Your task to perform on an android device: allow cookies in the chrome app Image 0: 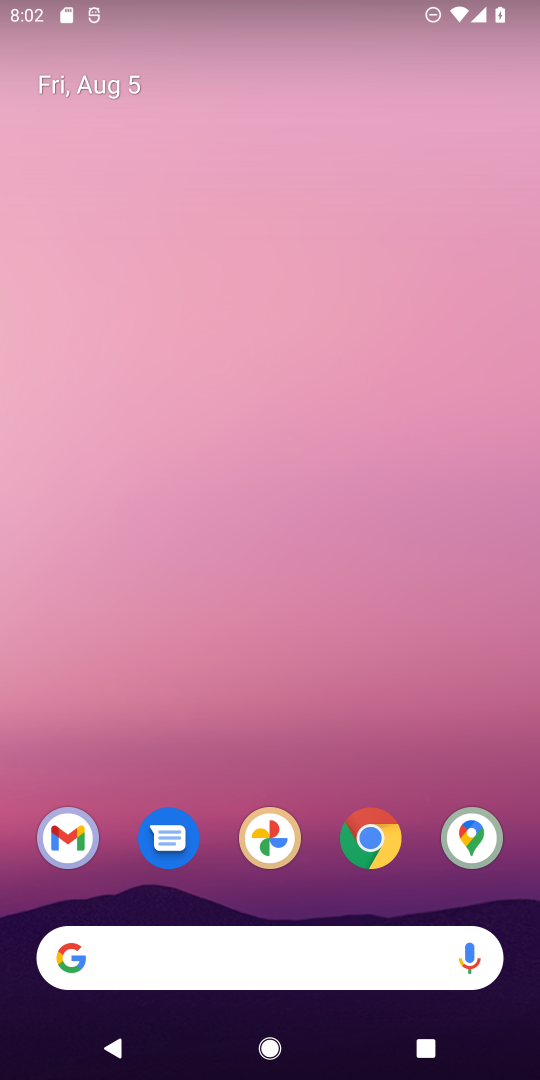
Step 0: click (368, 830)
Your task to perform on an android device: allow cookies in the chrome app Image 1: 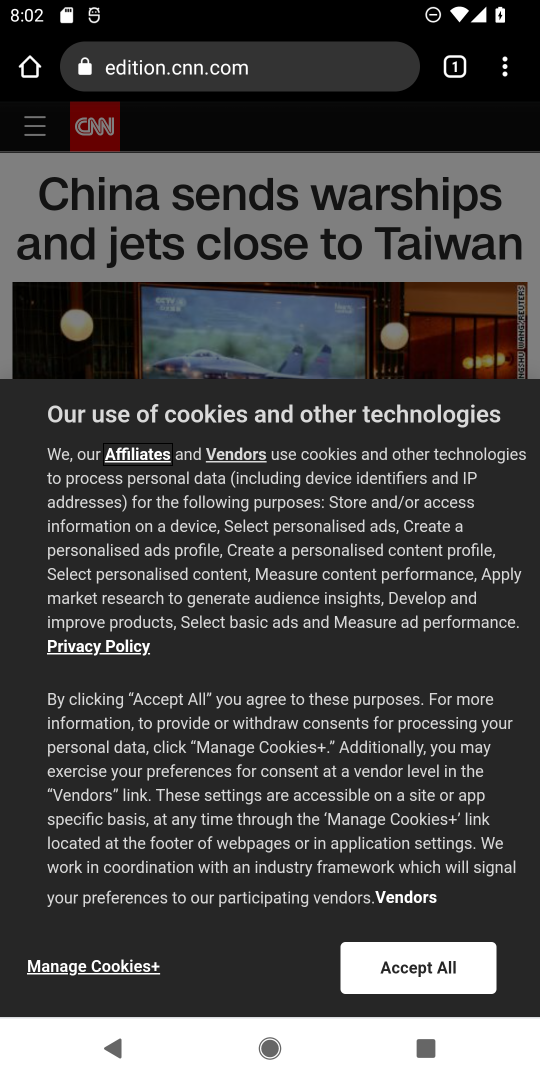
Step 1: click (510, 77)
Your task to perform on an android device: allow cookies in the chrome app Image 2: 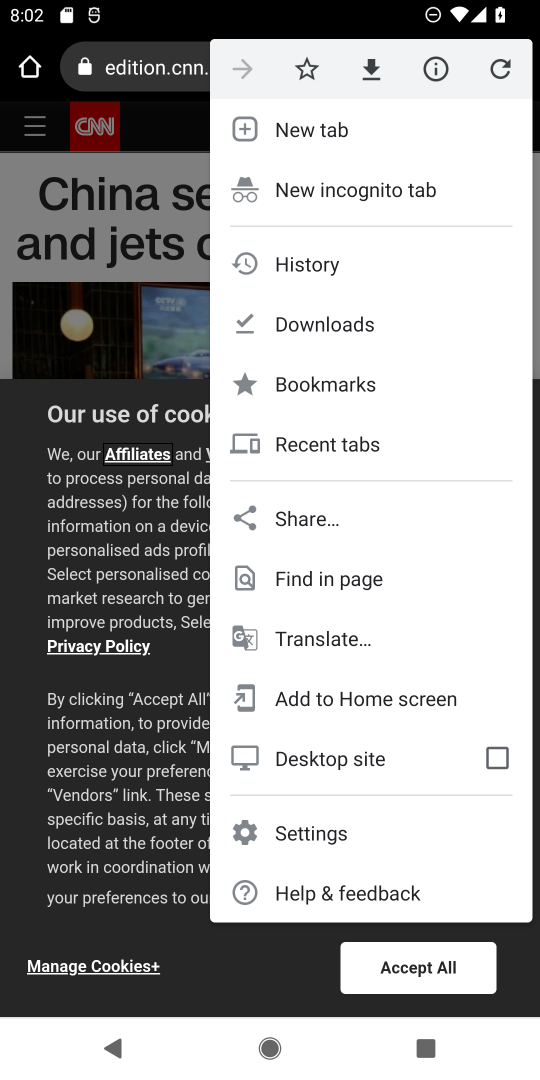
Step 2: click (325, 844)
Your task to perform on an android device: allow cookies in the chrome app Image 3: 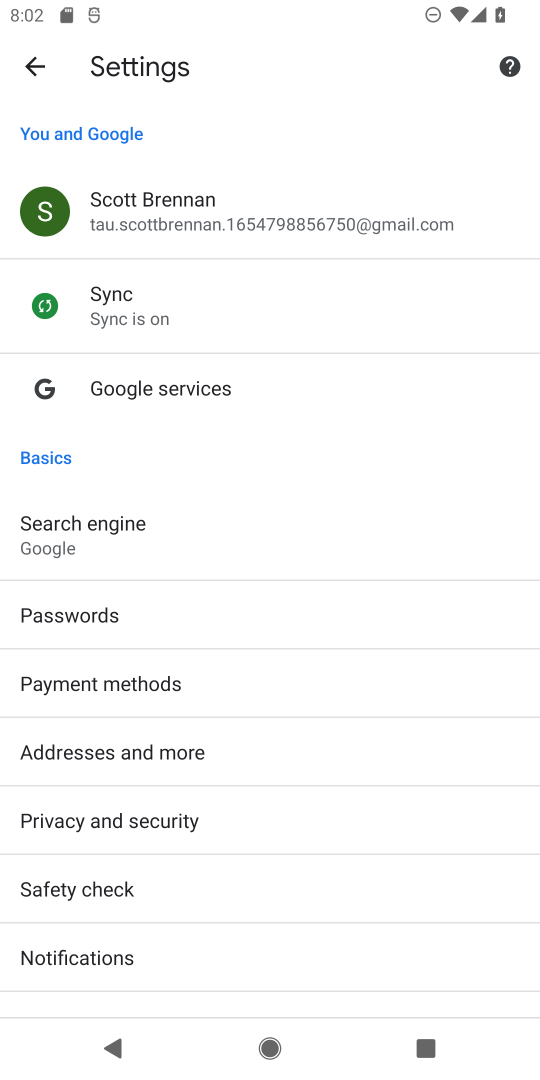
Step 3: drag from (78, 943) to (76, 422)
Your task to perform on an android device: allow cookies in the chrome app Image 4: 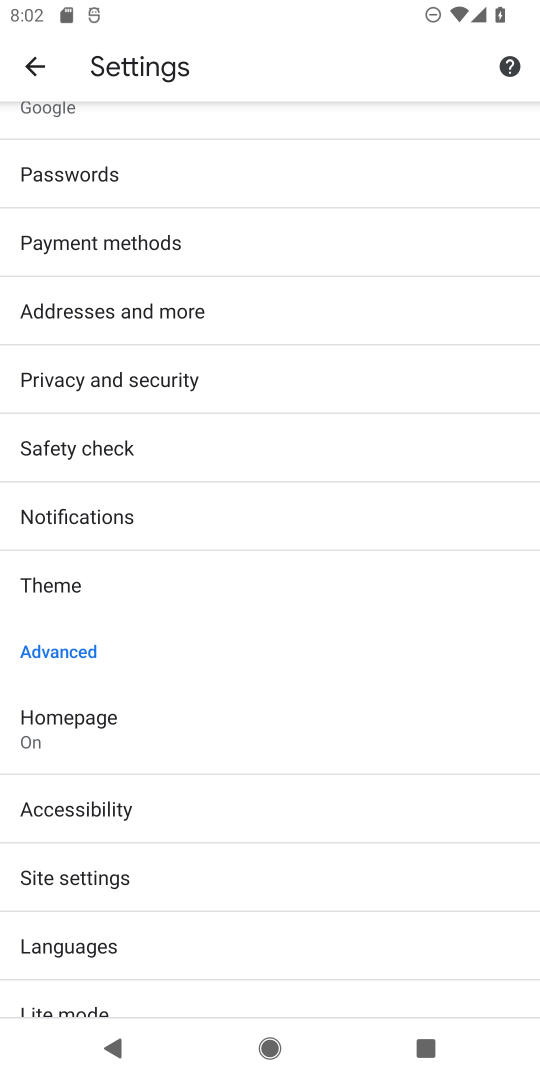
Step 4: click (79, 873)
Your task to perform on an android device: allow cookies in the chrome app Image 5: 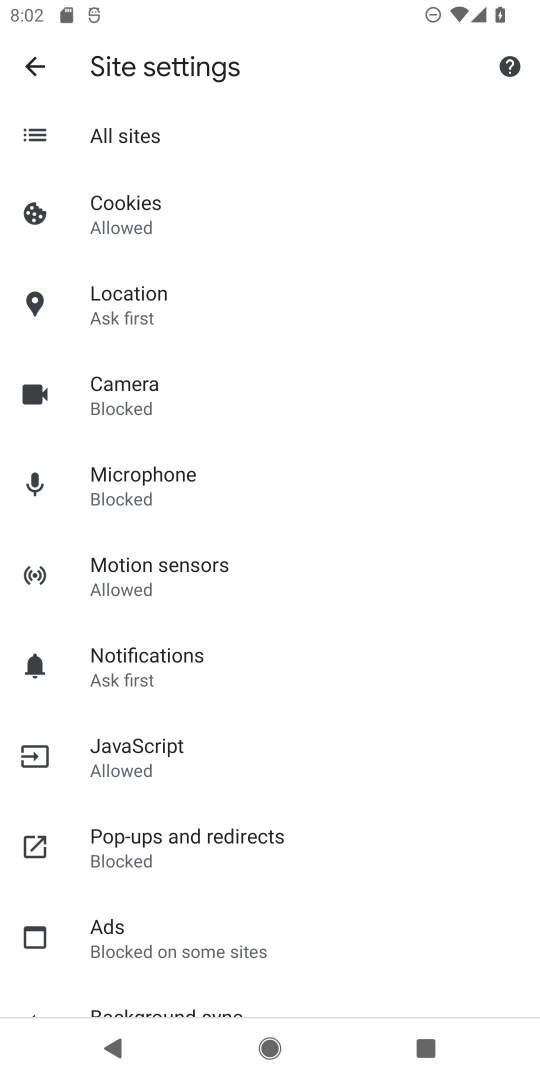
Step 5: click (124, 207)
Your task to perform on an android device: allow cookies in the chrome app Image 6: 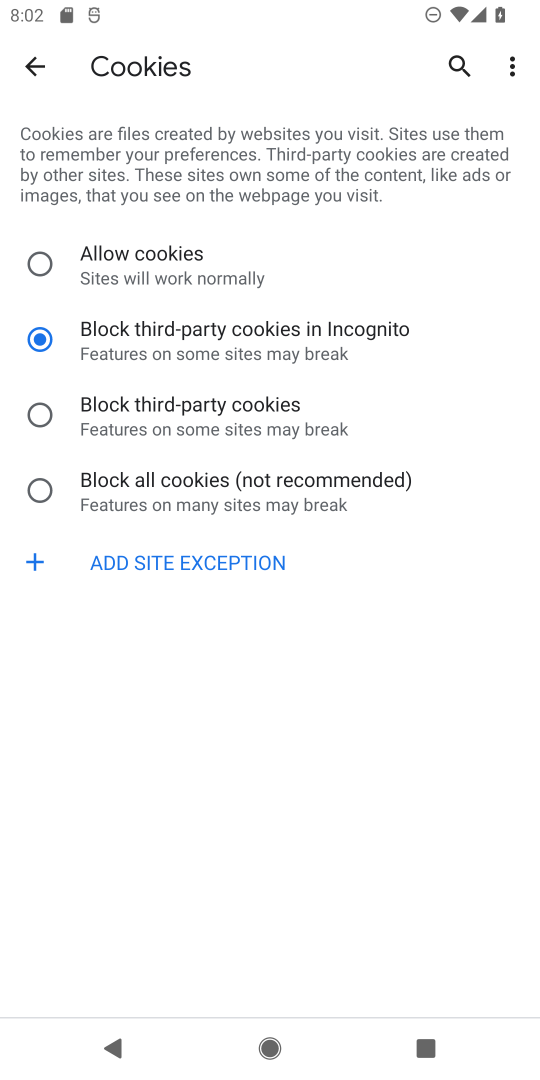
Step 6: click (209, 254)
Your task to perform on an android device: allow cookies in the chrome app Image 7: 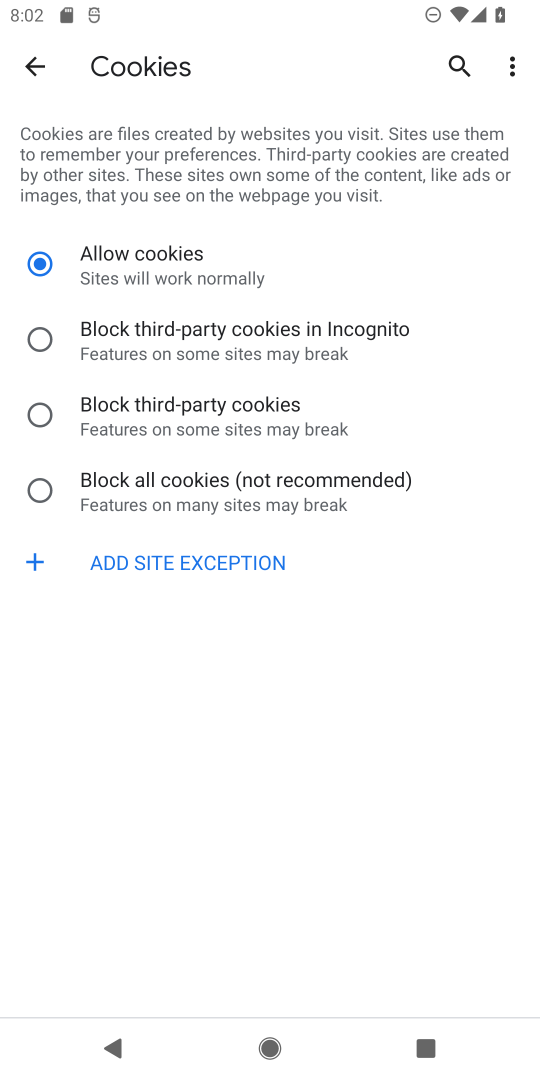
Step 7: task complete